Your task to perform on an android device: What is the recent news? Image 0: 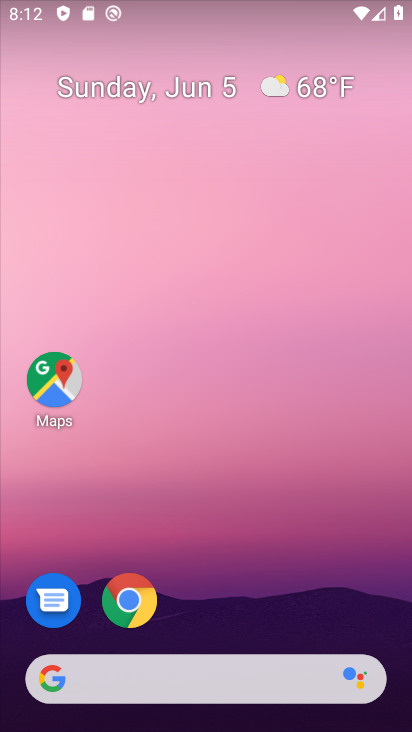
Step 0: click (194, 674)
Your task to perform on an android device: What is the recent news? Image 1: 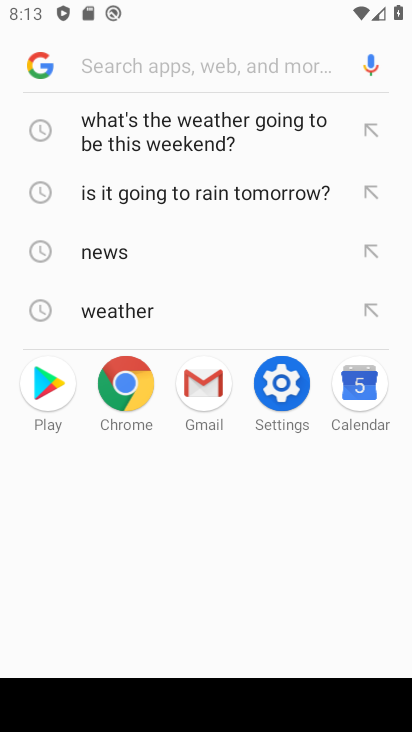
Step 1: type "what is the recent news"
Your task to perform on an android device: What is the recent news? Image 2: 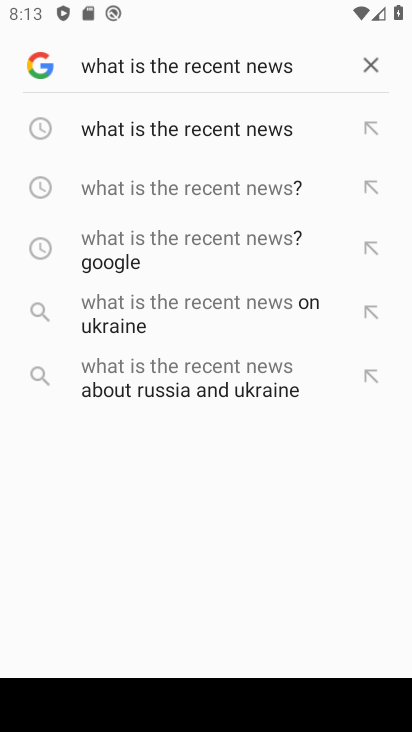
Step 2: click (209, 182)
Your task to perform on an android device: What is the recent news? Image 3: 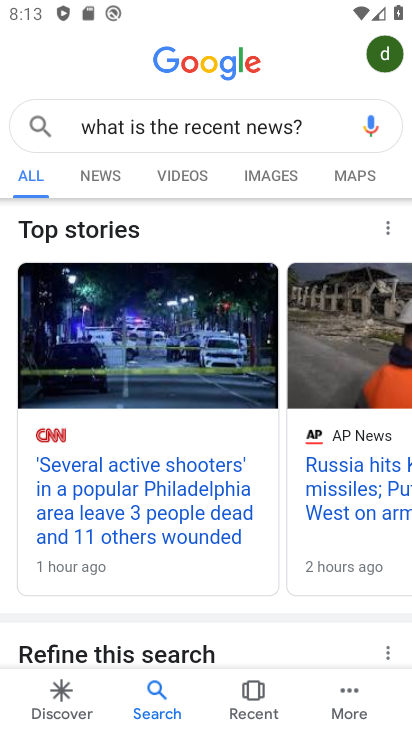
Step 3: click (113, 180)
Your task to perform on an android device: What is the recent news? Image 4: 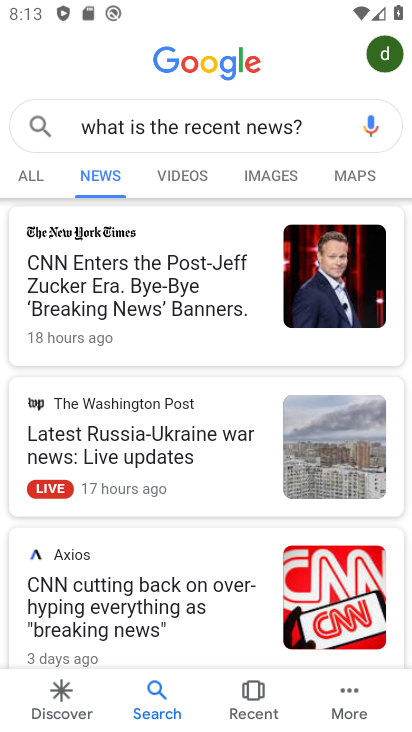
Step 4: task complete